Your task to perform on an android device: Go to internet settings Image 0: 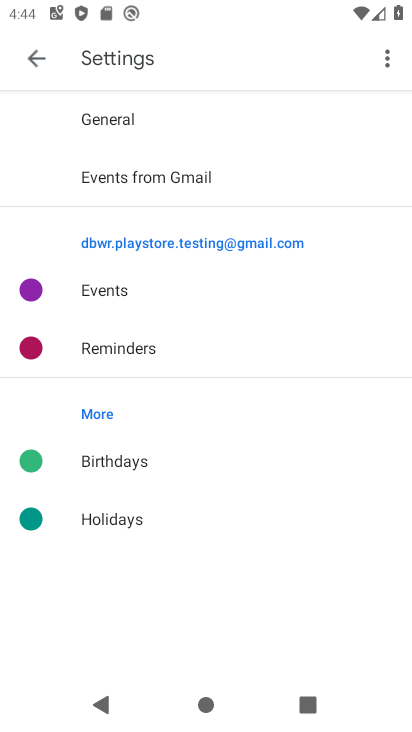
Step 0: press home button
Your task to perform on an android device: Go to internet settings Image 1: 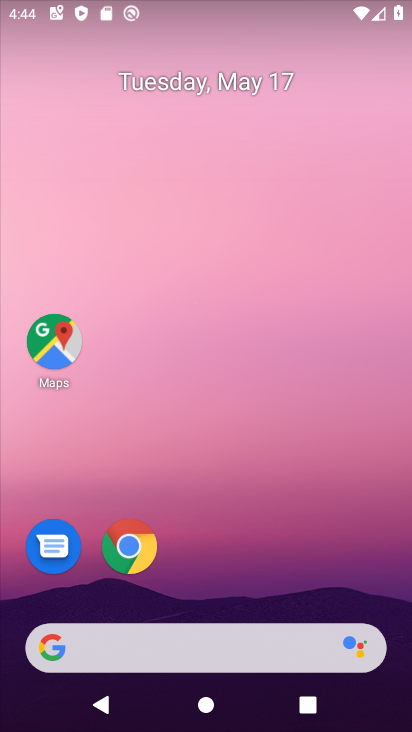
Step 1: drag from (242, 493) to (285, 63)
Your task to perform on an android device: Go to internet settings Image 2: 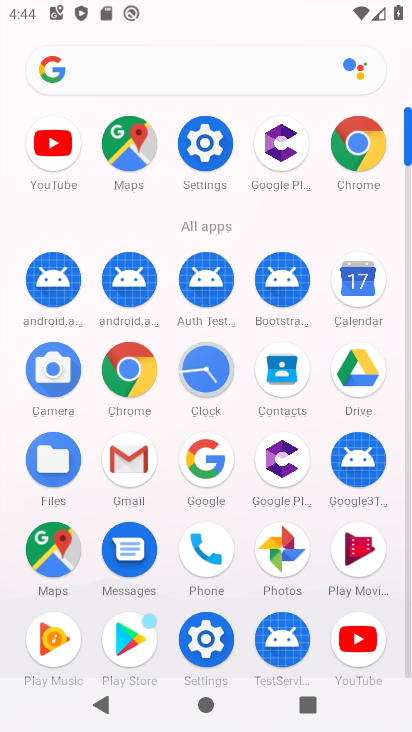
Step 2: click (210, 149)
Your task to perform on an android device: Go to internet settings Image 3: 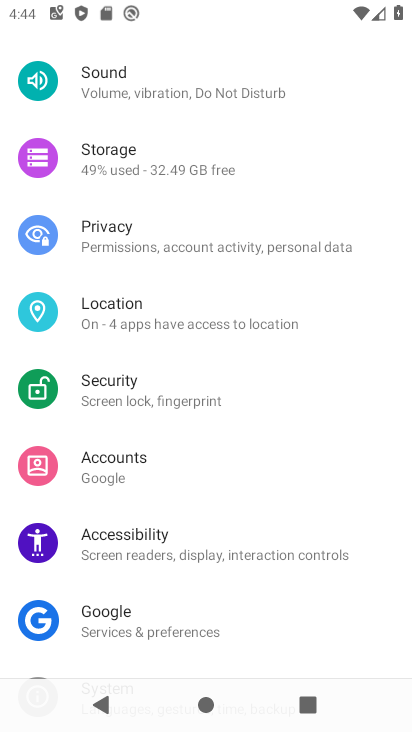
Step 3: drag from (209, 209) to (221, 413)
Your task to perform on an android device: Go to internet settings Image 4: 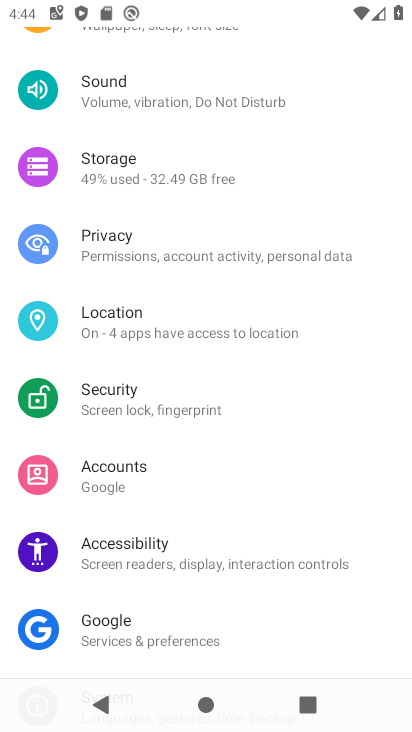
Step 4: drag from (203, 211) to (191, 607)
Your task to perform on an android device: Go to internet settings Image 5: 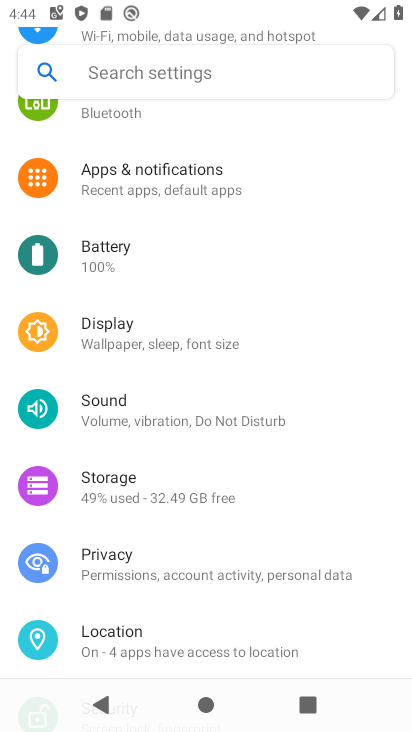
Step 5: click (200, 643)
Your task to perform on an android device: Go to internet settings Image 6: 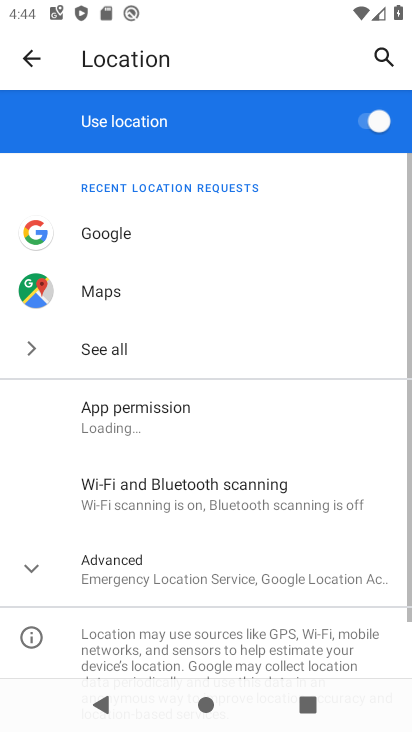
Step 6: drag from (204, 227) to (213, 588)
Your task to perform on an android device: Go to internet settings Image 7: 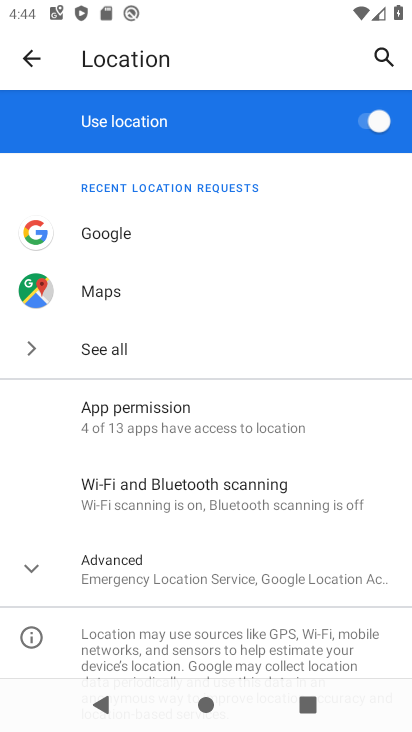
Step 7: click (27, 58)
Your task to perform on an android device: Go to internet settings Image 8: 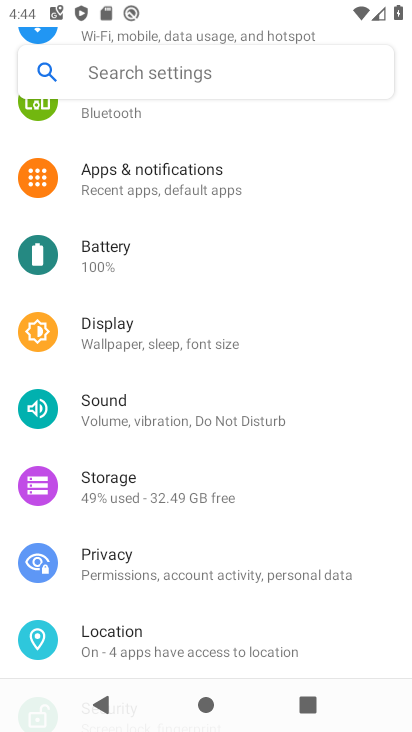
Step 8: drag from (249, 215) to (232, 530)
Your task to perform on an android device: Go to internet settings Image 9: 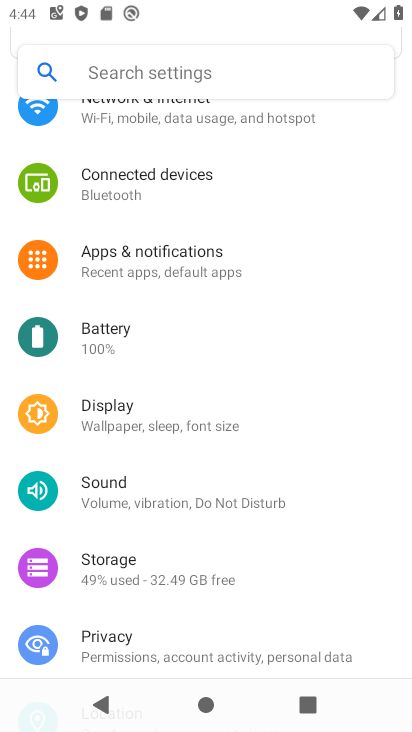
Step 9: drag from (172, 318) to (117, 620)
Your task to perform on an android device: Go to internet settings Image 10: 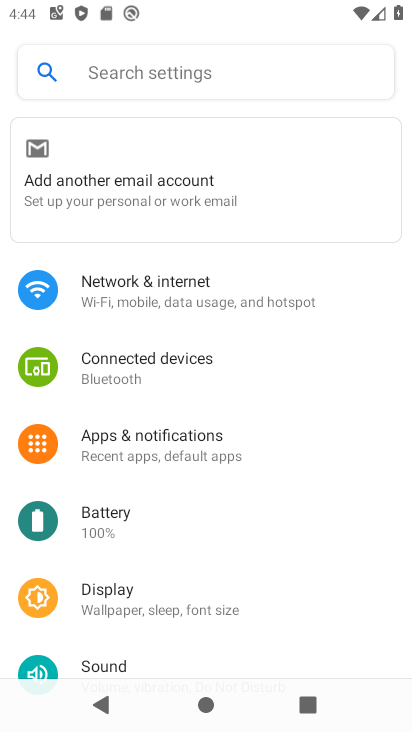
Step 10: click (140, 288)
Your task to perform on an android device: Go to internet settings Image 11: 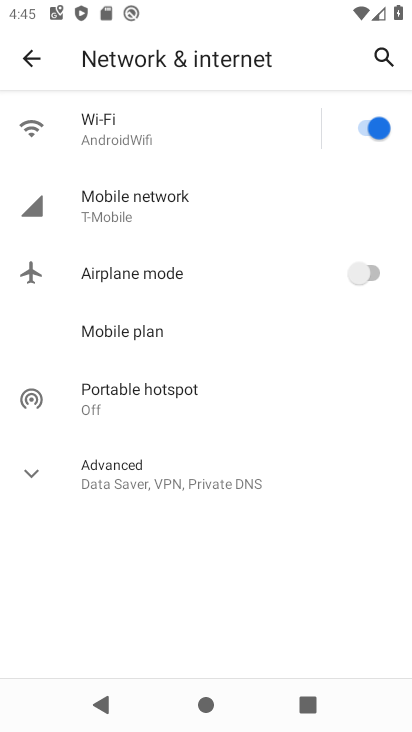
Step 11: task complete